Your task to perform on an android device: Go to Android settings Image 0: 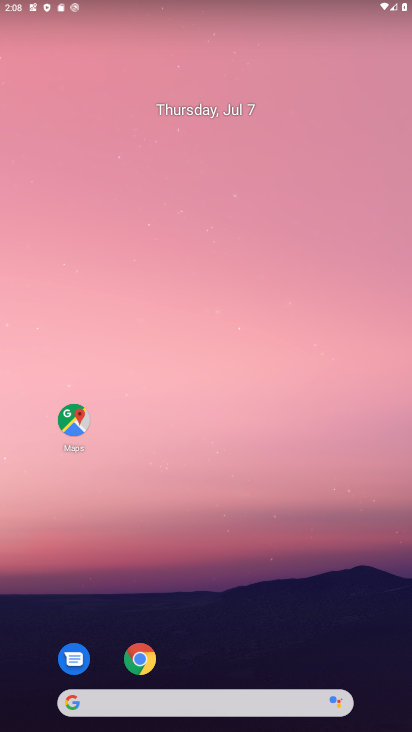
Step 0: drag from (285, 554) to (269, 171)
Your task to perform on an android device: Go to Android settings Image 1: 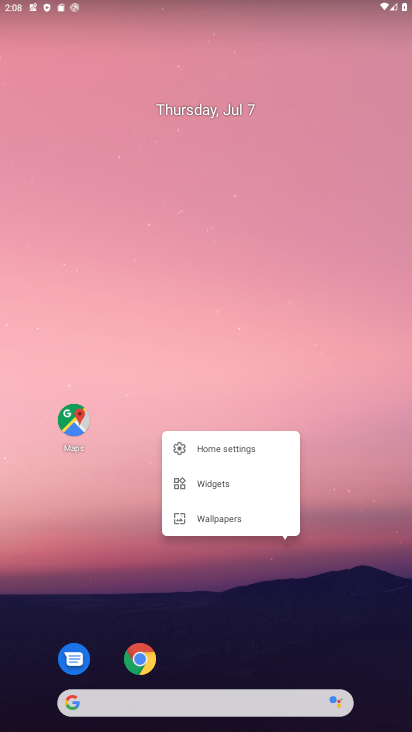
Step 1: drag from (240, 602) to (225, 9)
Your task to perform on an android device: Go to Android settings Image 2: 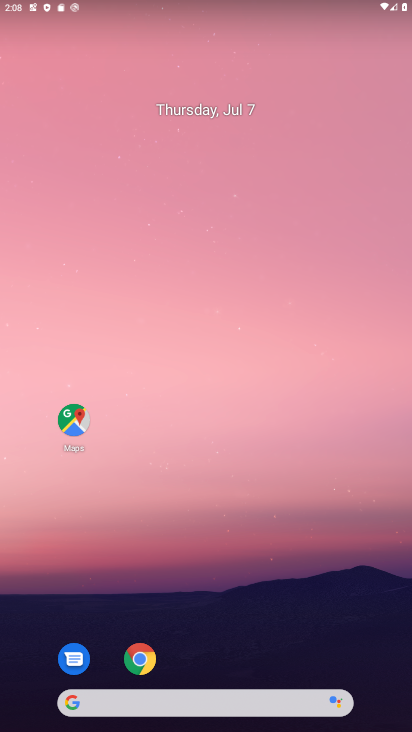
Step 2: drag from (273, 525) to (269, 165)
Your task to perform on an android device: Go to Android settings Image 3: 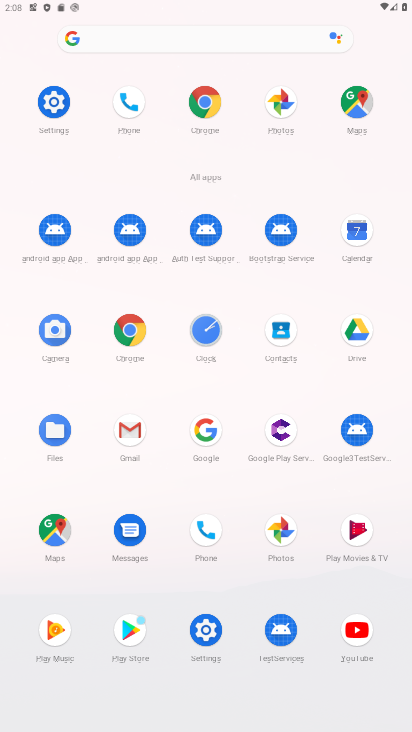
Step 3: click (50, 98)
Your task to perform on an android device: Go to Android settings Image 4: 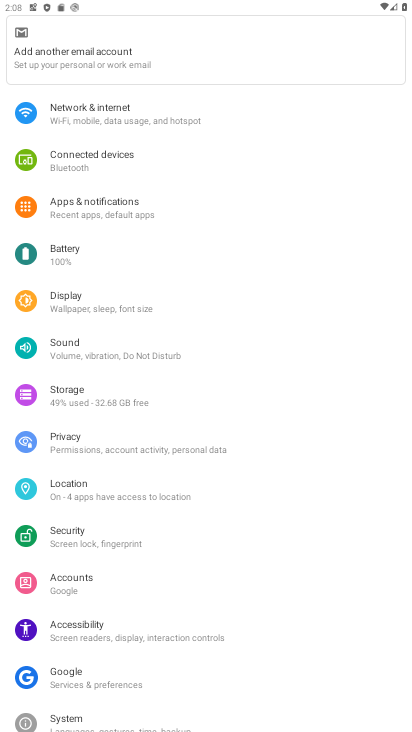
Step 4: drag from (211, 631) to (174, 87)
Your task to perform on an android device: Go to Android settings Image 5: 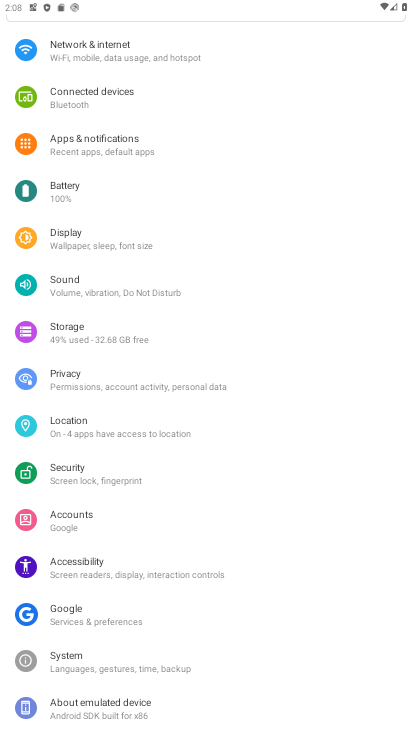
Step 5: click (103, 701)
Your task to perform on an android device: Go to Android settings Image 6: 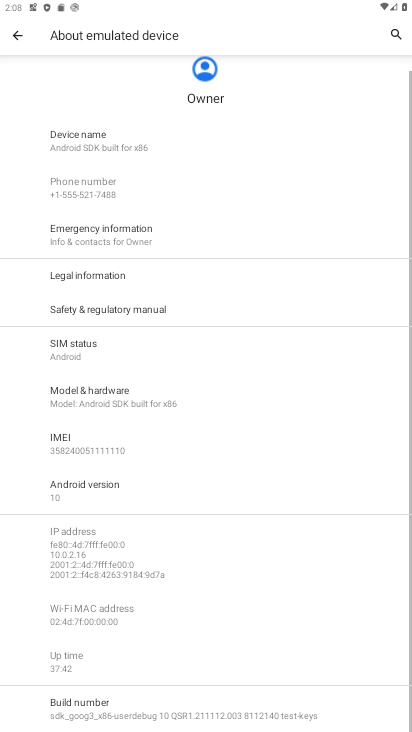
Step 6: task complete